Your task to perform on an android device: move an email to a new category in the gmail app Image 0: 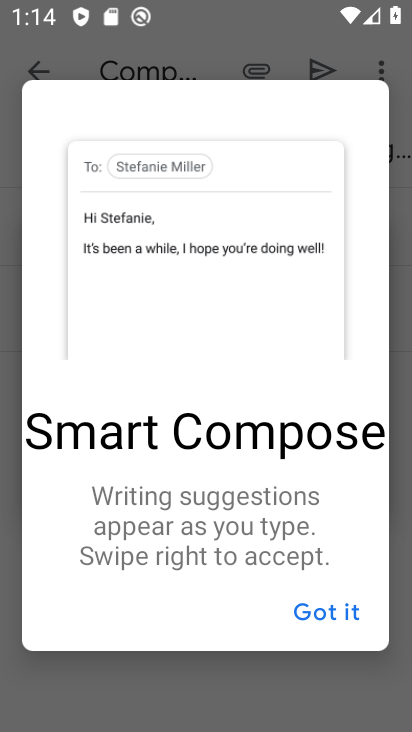
Step 0: press home button
Your task to perform on an android device: move an email to a new category in the gmail app Image 1: 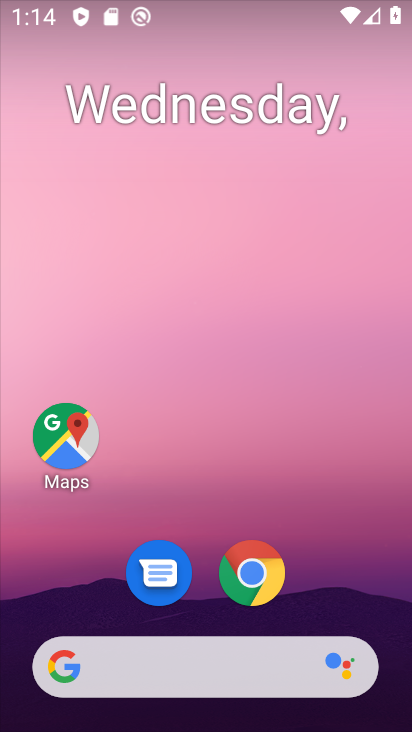
Step 1: drag from (86, 580) to (214, 89)
Your task to perform on an android device: move an email to a new category in the gmail app Image 2: 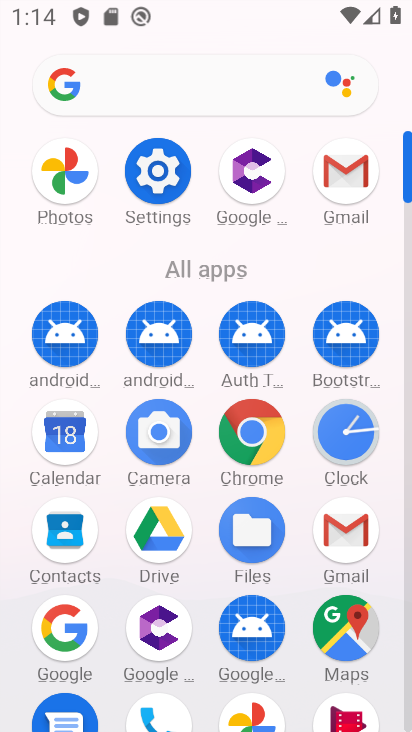
Step 2: click (359, 536)
Your task to perform on an android device: move an email to a new category in the gmail app Image 3: 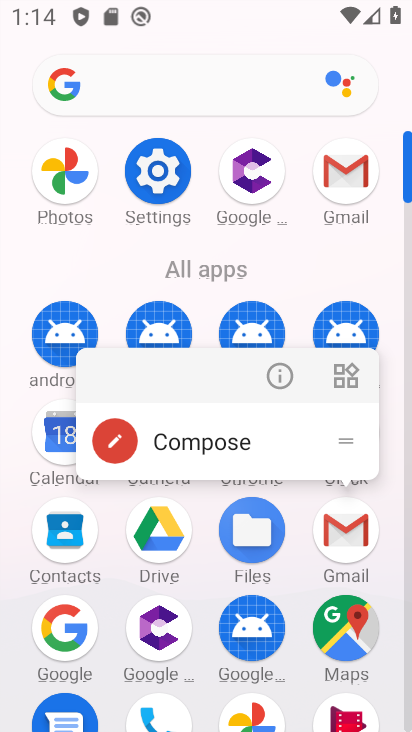
Step 3: click (349, 510)
Your task to perform on an android device: move an email to a new category in the gmail app Image 4: 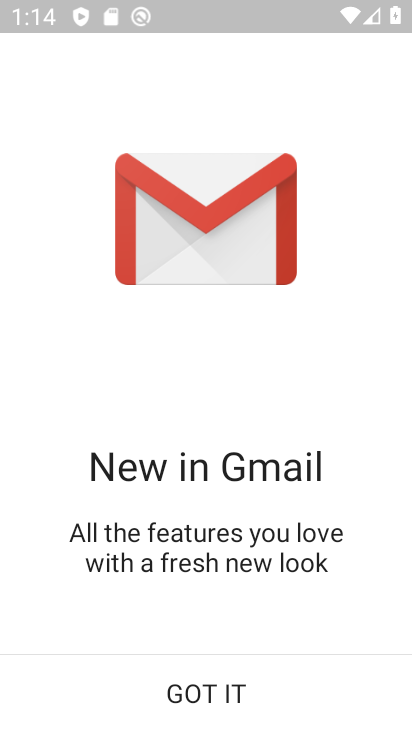
Step 4: click (200, 682)
Your task to perform on an android device: move an email to a new category in the gmail app Image 5: 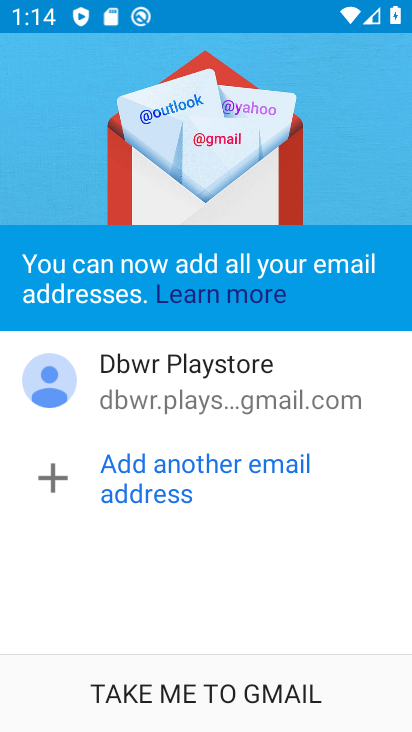
Step 5: click (225, 687)
Your task to perform on an android device: move an email to a new category in the gmail app Image 6: 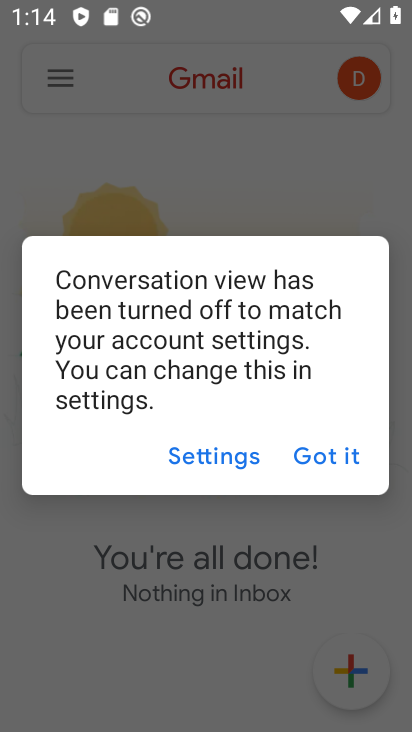
Step 6: click (352, 471)
Your task to perform on an android device: move an email to a new category in the gmail app Image 7: 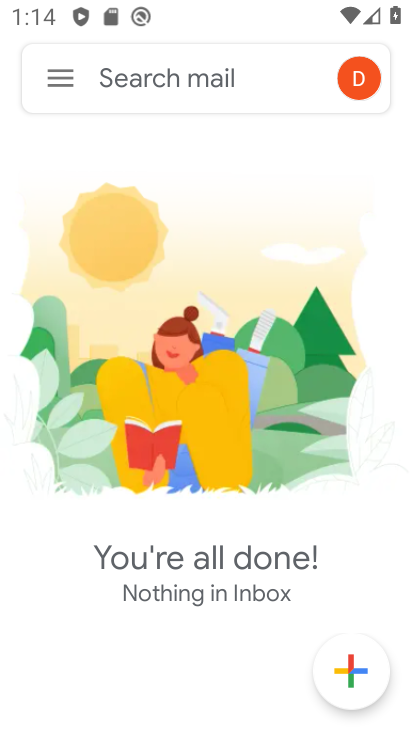
Step 7: click (67, 79)
Your task to perform on an android device: move an email to a new category in the gmail app Image 8: 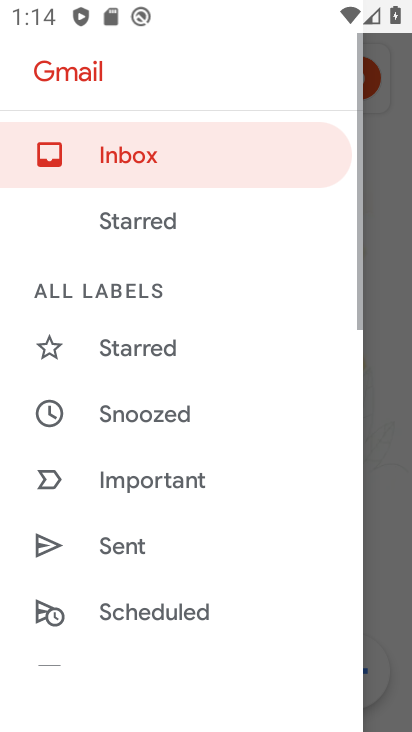
Step 8: drag from (160, 570) to (208, 272)
Your task to perform on an android device: move an email to a new category in the gmail app Image 9: 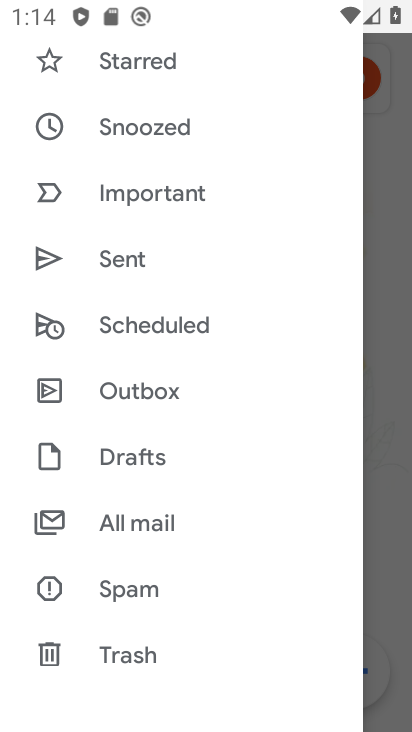
Step 9: click (169, 527)
Your task to perform on an android device: move an email to a new category in the gmail app Image 10: 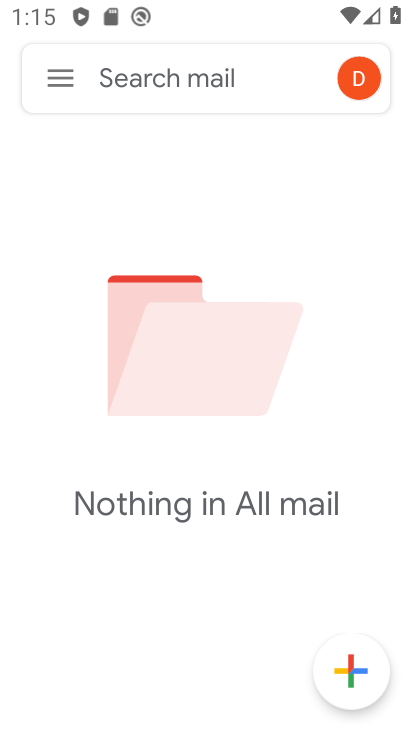
Step 10: task complete